Your task to perform on an android device: Find coffee shops on Maps Image 0: 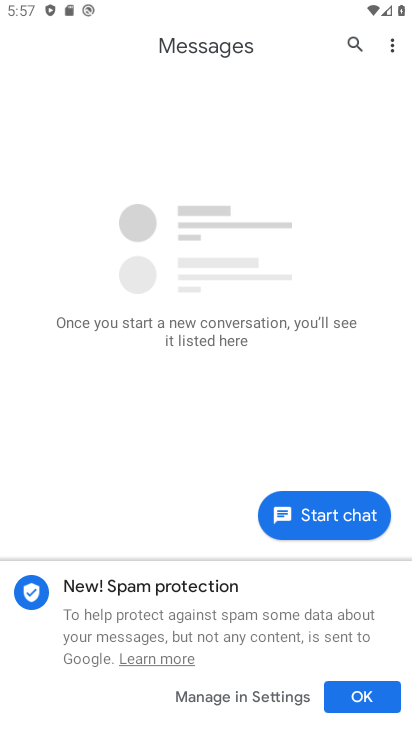
Step 0: press home button
Your task to perform on an android device: Find coffee shops on Maps Image 1: 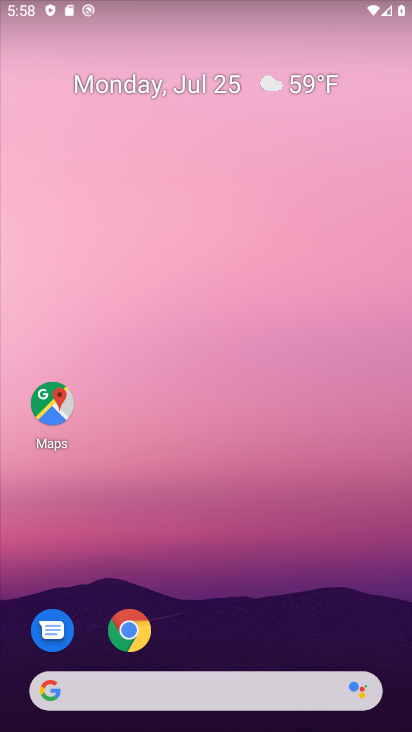
Step 1: click (57, 414)
Your task to perform on an android device: Find coffee shops on Maps Image 2: 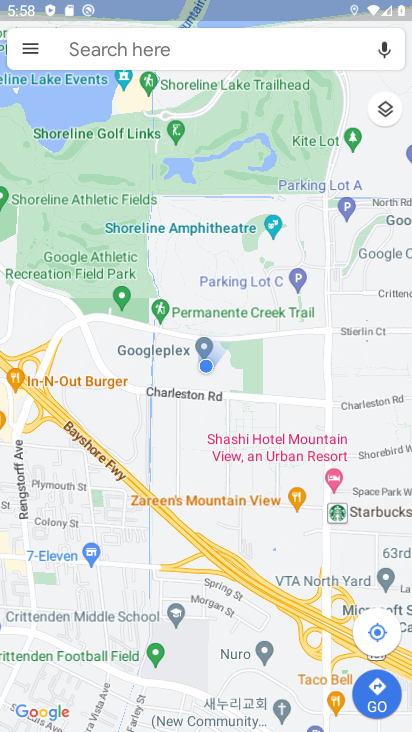
Step 2: click (146, 49)
Your task to perform on an android device: Find coffee shops on Maps Image 3: 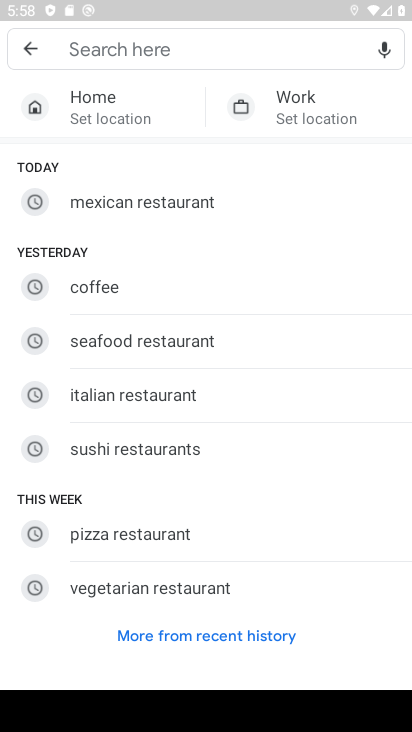
Step 3: type "coffee shops"
Your task to perform on an android device: Find coffee shops on Maps Image 4: 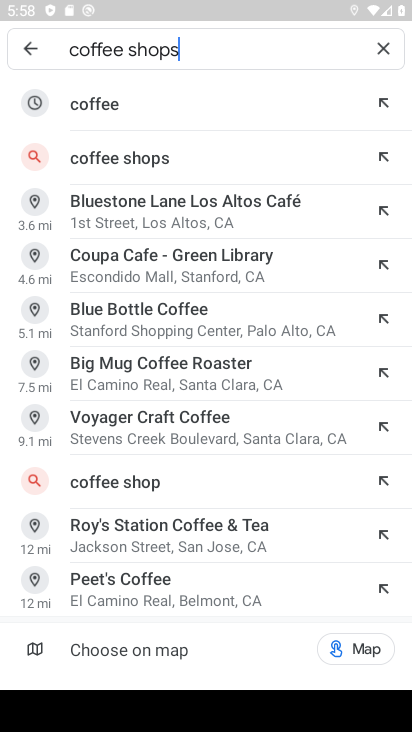
Step 4: click (128, 161)
Your task to perform on an android device: Find coffee shops on Maps Image 5: 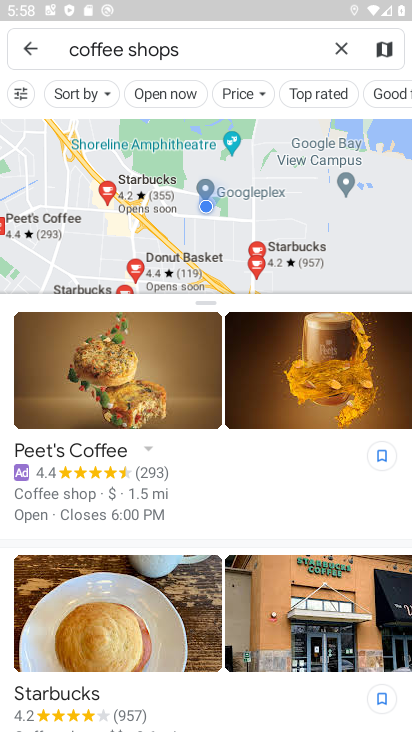
Step 5: task complete